Your task to perform on an android device: Go to wifi settings Image 0: 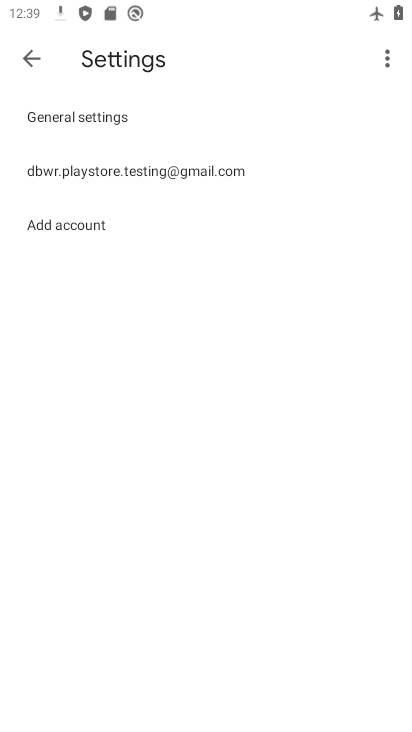
Step 0: press home button
Your task to perform on an android device: Go to wifi settings Image 1: 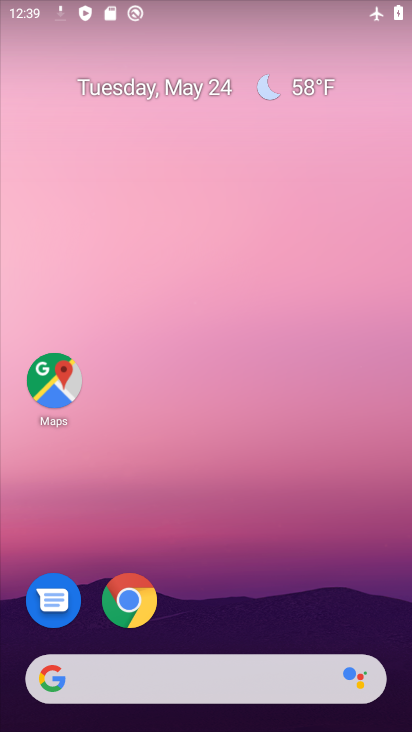
Step 1: drag from (283, 570) to (205, 11)
Your task to perform on an android device: Go to wifi settings Image 2: 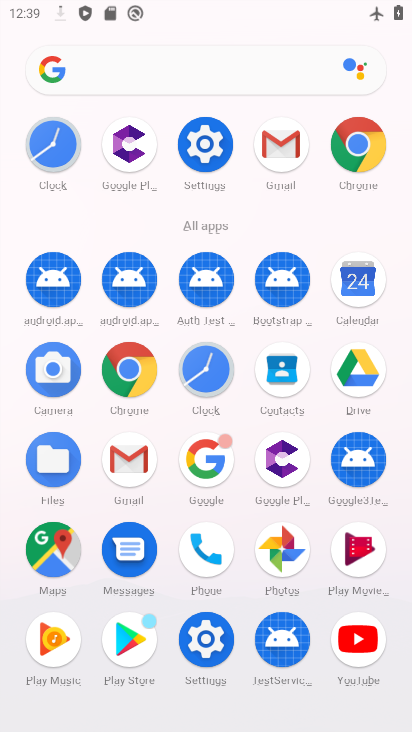
Step 2: click (197, 149)
Your task to perform on an android device: Go to wifi settings Image 3: 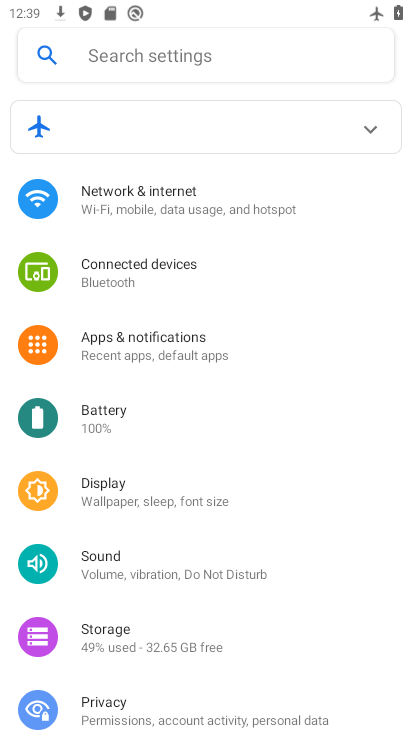
Step 3: click (185, 203)
Your task to perform on an android device: Go to wifi settings Image 4: 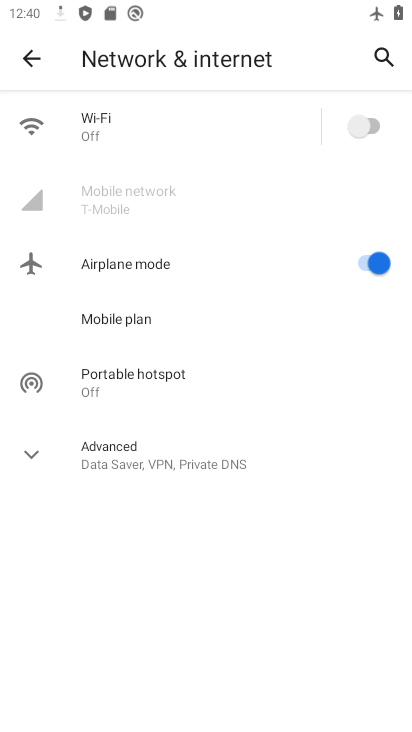
Step 4: click (185, 129)
Your task to perform on an android device: Go to wifi settings Image 5: 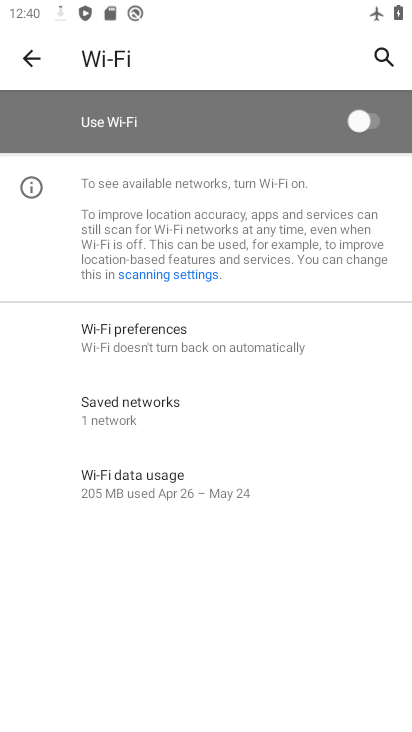
Step 5: task complete